Your task to perform on an android device: turn on improve location accuracy Image 0: 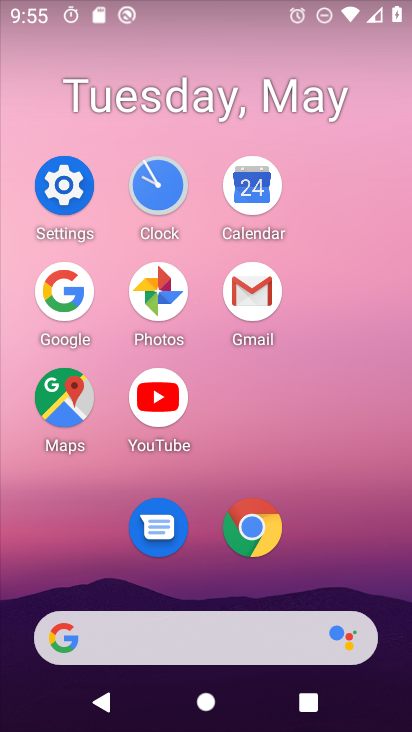
Step 0: click (65, 214)
Your task to perform on an android device: turn on improve location accuracy Image 1: 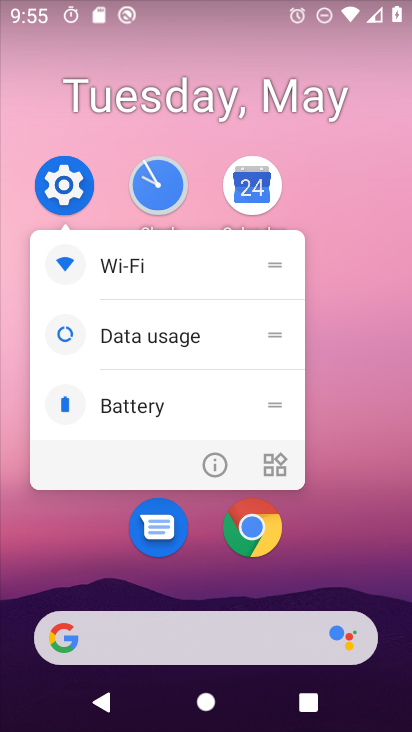
Step 1: click (84, 178)
Your task to perform on an android device: turn on improve location accuracy Image 2: 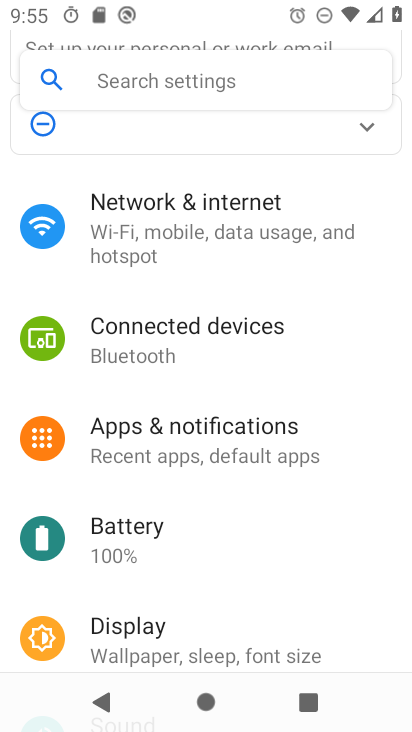
Step 2: drag from (293, 597) to (358, 230)
Your task to perform on an android device: turn on improve location accuracy Image 3: 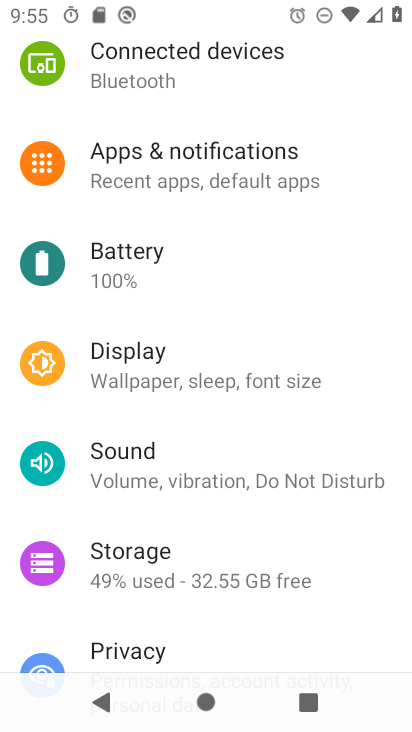
Step 3: drag from (254, 581) to (300, 136)
Your task to perform on an android device: turn on improve location accuracy Image 4: 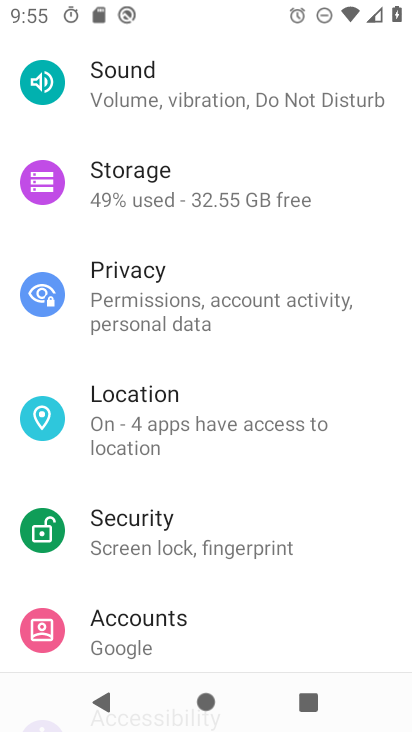
Step 4: click (232, 436)
Your task to perform on an android device: turn on improve location accuracy Image 5: 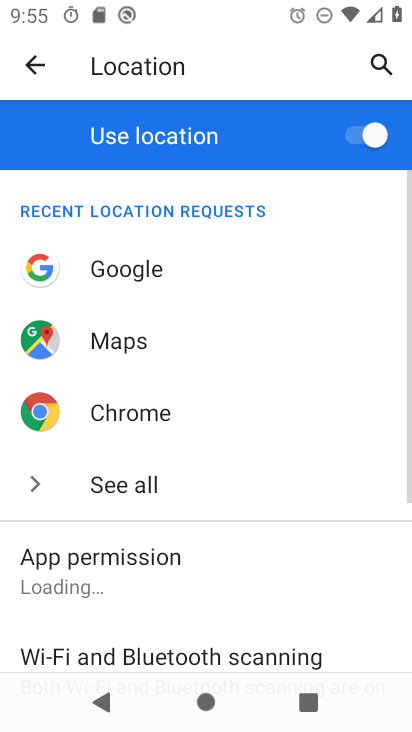
Step 5: drag from (222, 581) to (275, 214)
Your task to perform on an android device: turn on improve location accuracy Image 6: 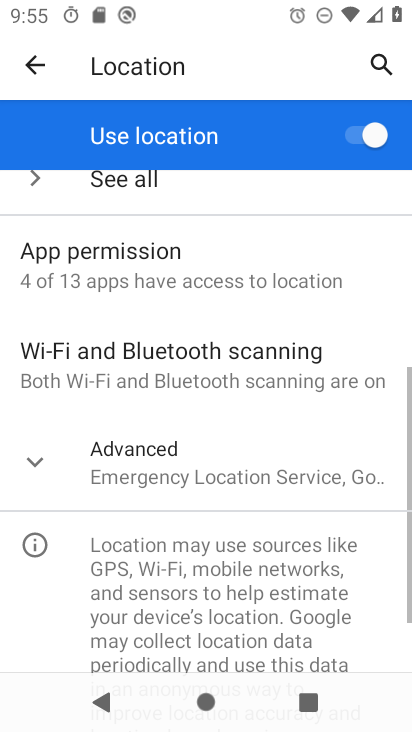
Step 6: click (220, 487)
Your task to perform on an android device: turn on improve location accuracy Image 7: 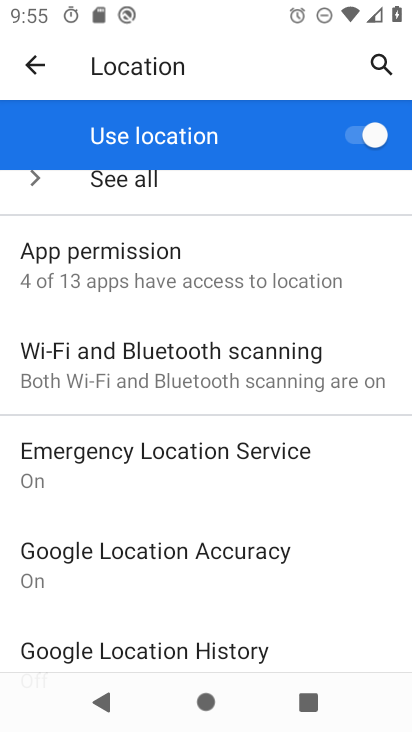
Step 7: click (211, 556)
Your task to perform on an android device: turn on improve location accuracy Image 8: 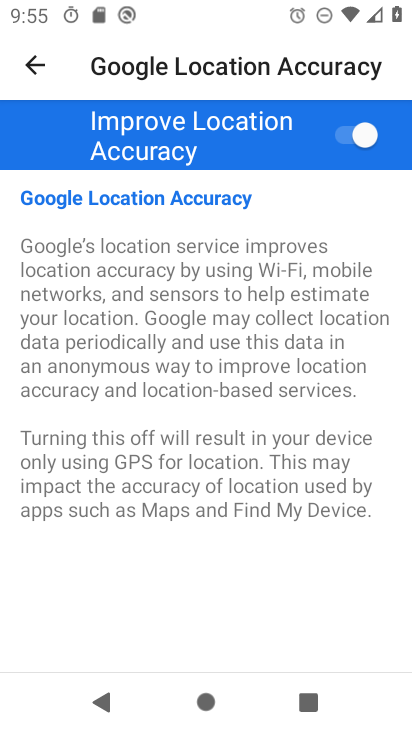
Step 8: task complete